Your task to perform on an android device: change text size in settings app Image 0: 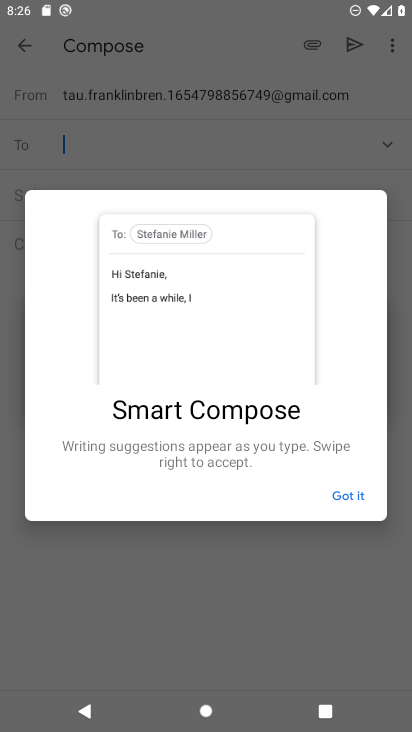
Step 0: press home button
Your task to perform on an android device: change text size in settings app Image 1: 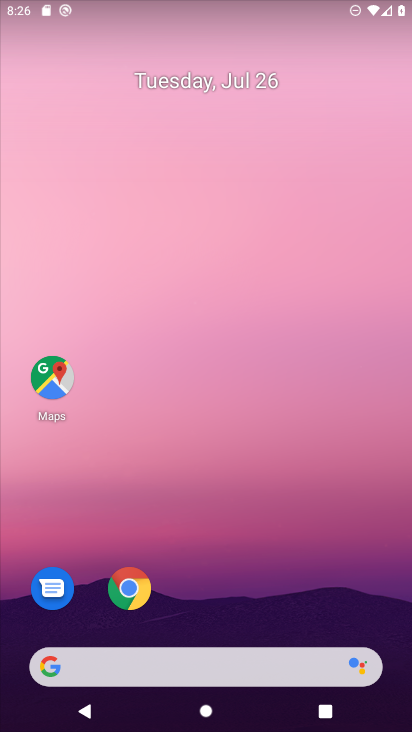
Step 1: drag from (228, 625) to (221, 2)
Your task to perform on an android device: change text size in settings app Image 2: 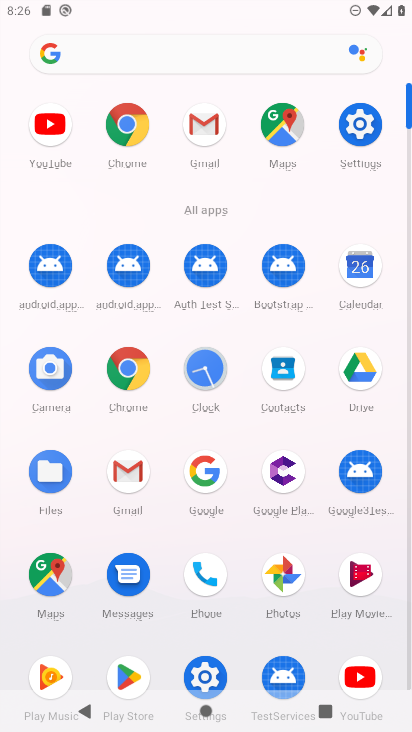
Step 2: click (366, 127)
Your task to perform on an android device: change text size in settings app Image 3: 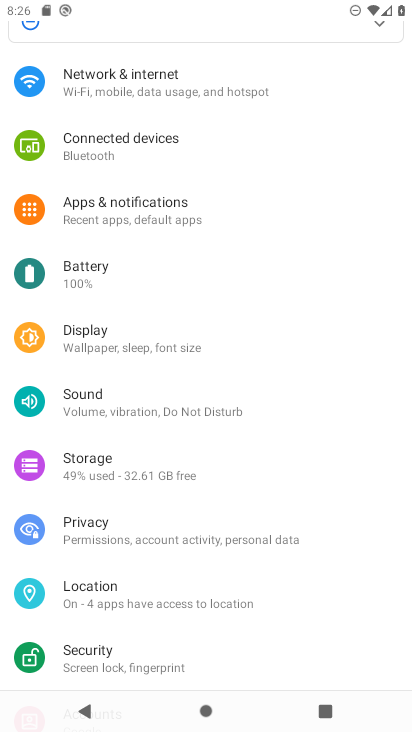
Step 3: drag from (267, 601) to (260, 333)
Your task to perform on an android device: change text size in settings app Image 4: 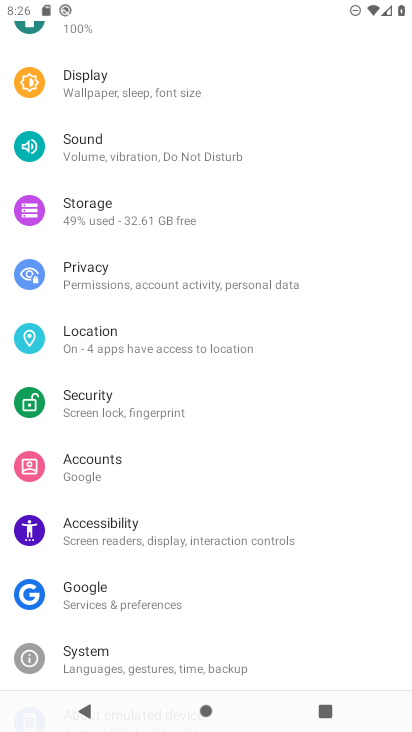
Step 4: click (100, 536)
Your task to perform on an android device: change text size in settings app Image 5: 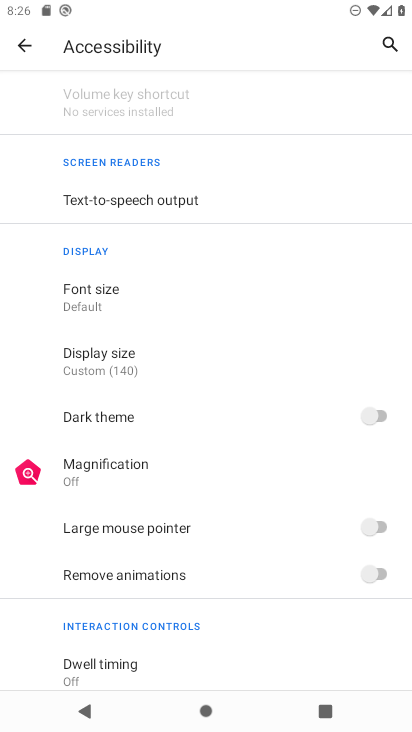
Step 5: click (96, 309)
Your task to perform on an android device: change text size in settings app Image 6: 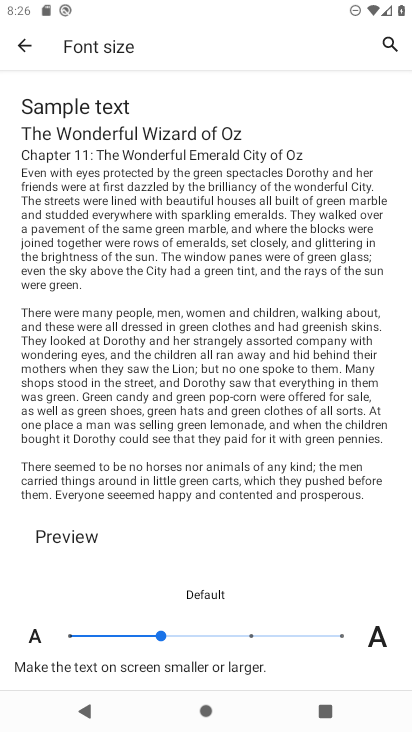
Step 6: click (258, 640)
Your task to perform on an android device: change text size in settings app Image 7: 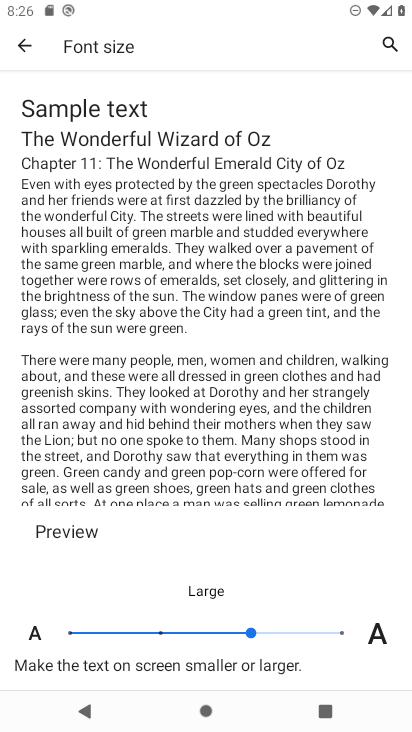
Step 7: task complete